Your task to perform on an android device: Check the news Image 0: 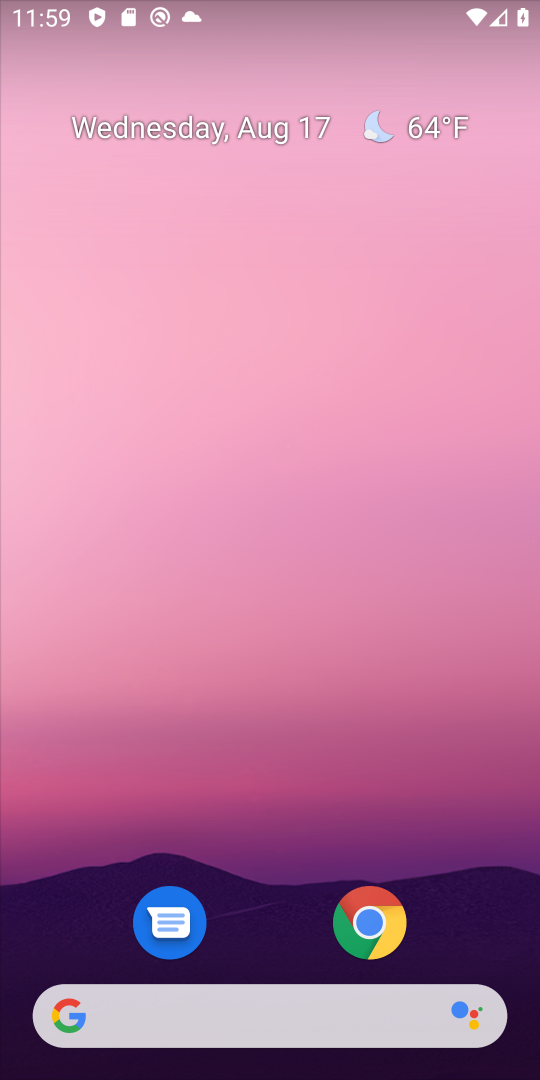
Step 0: press home button
Your task to perform on an android device: Check the news Image 1: 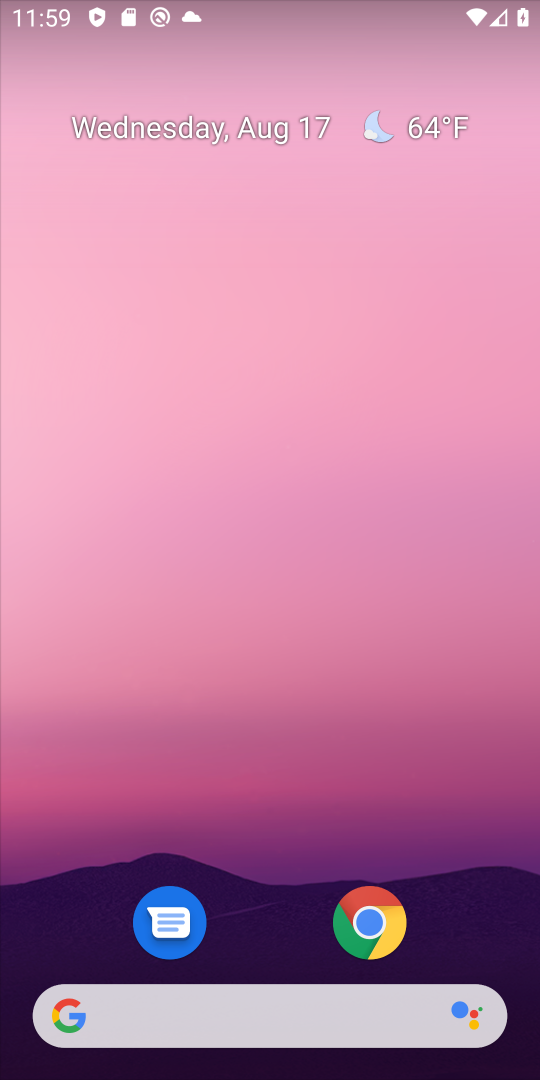
Step 1: drag from (304, 887) to (252, 52)
Your task to perform on an android device: Check the news Image 2: 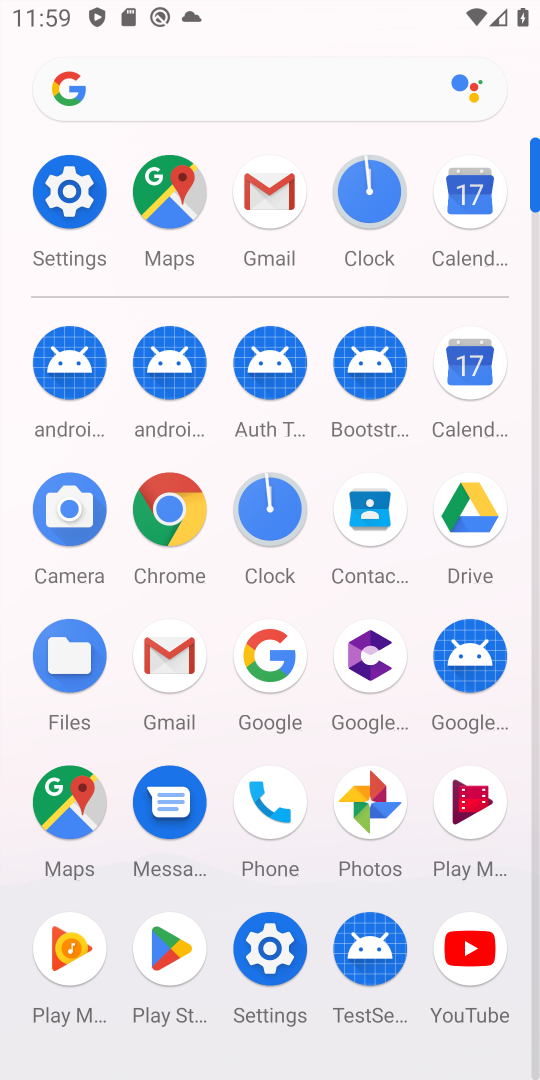
Step 2: click (258, 654)
Your task to perform on an android device: Check the news Image 3: 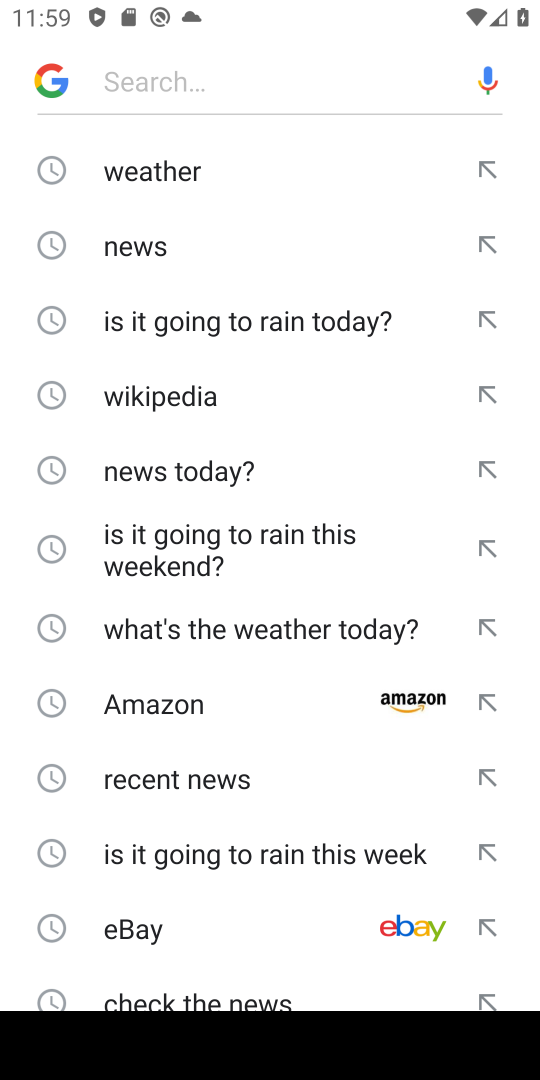
Step 3: click (150, 249)
Your task to perform on an android device: Check the news Image 4: 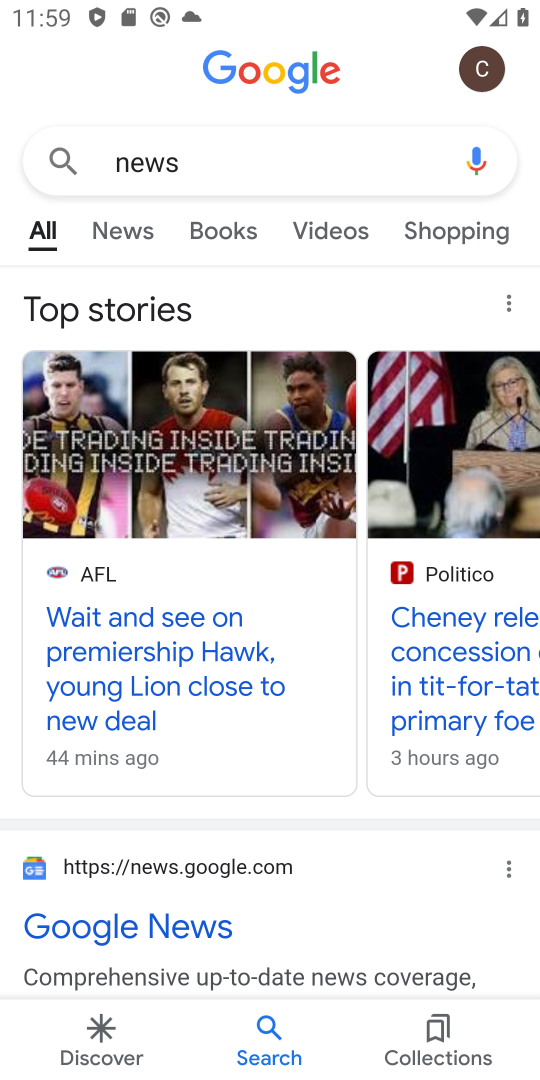
Step 4: click (173, 927)
Your task to perform on an android device: Check the news Image 5: 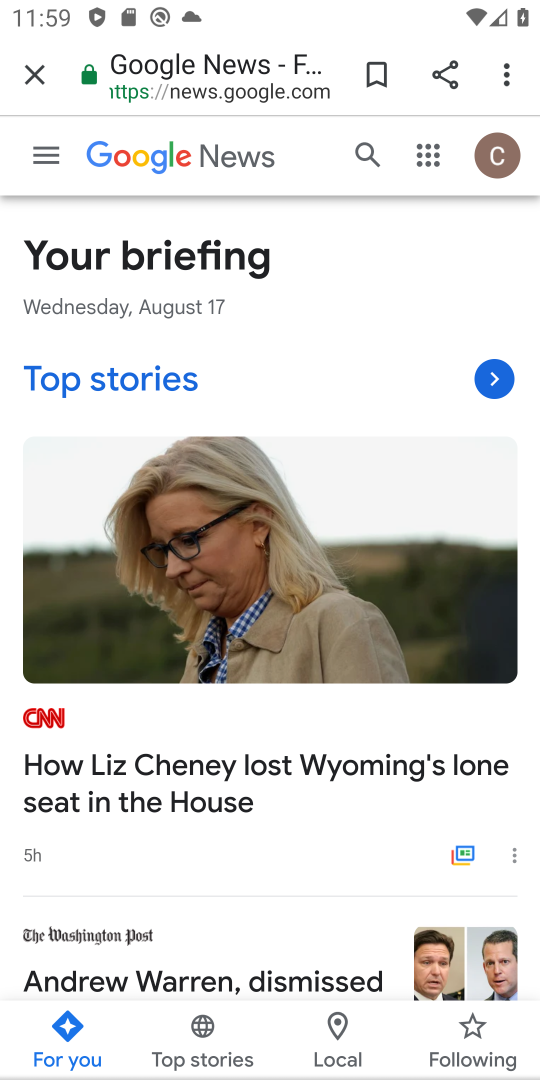
Step 5: task complete